Your task to perform on an android device: Open the calendar app, open the side menu, and click the "Day" option Image 0: 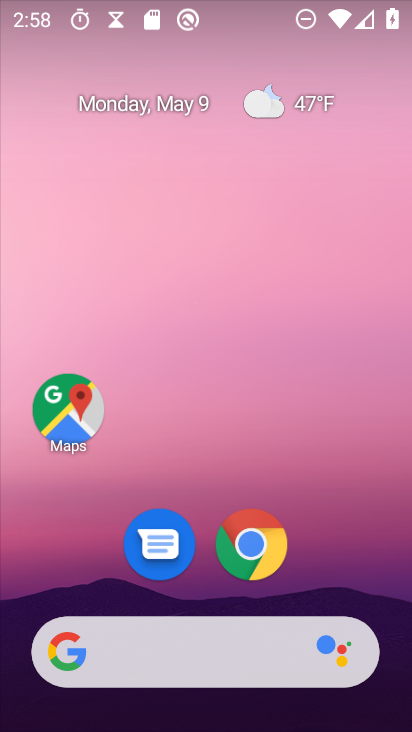
Step 0: drag from (321, 566) to (247, 56)
Your task to perform on an android device: Open the calendar app, open the side menu, and click the "Day" option Image 1: 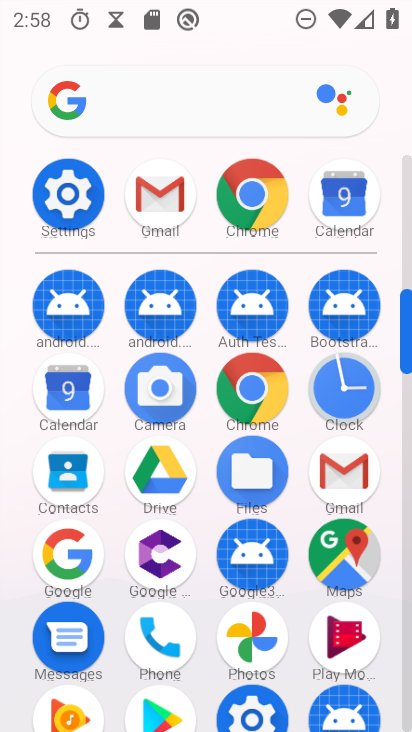
Step 1: click (79, 405)
Your task to perform on an android device: Open the calendar app, open the side menu, and click the "Day" option Image 2: 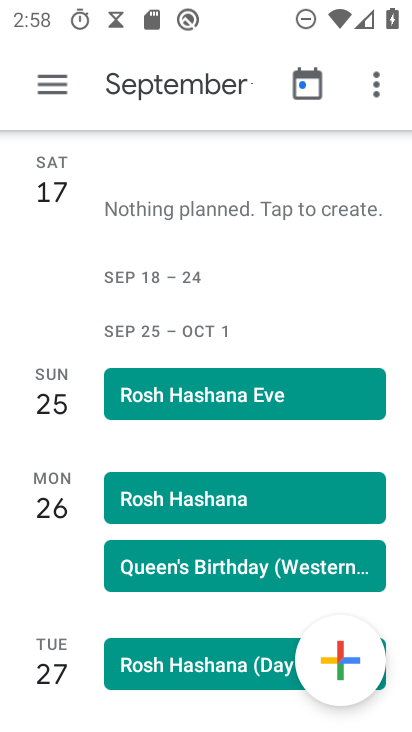
Step 2: click (59, 104)
Your task to perform on an android device: Open the calendar app, open the side menu, and click the "Day" option Image 3: 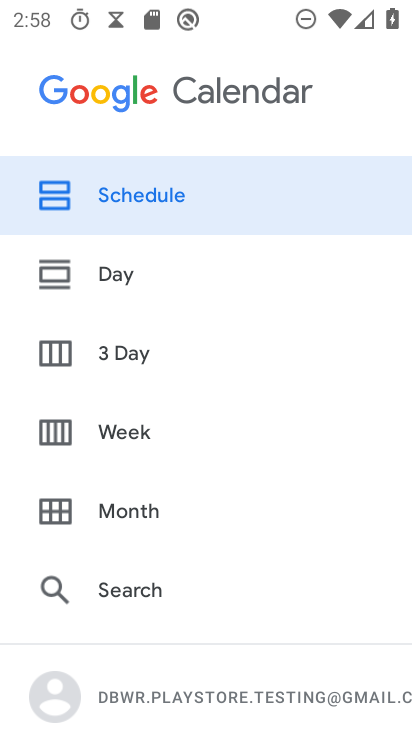
Step 3: click (130, 263)
Your task to perform on an android device: Open the calendar app, open the side menu, and click the "Day" option Image 4: 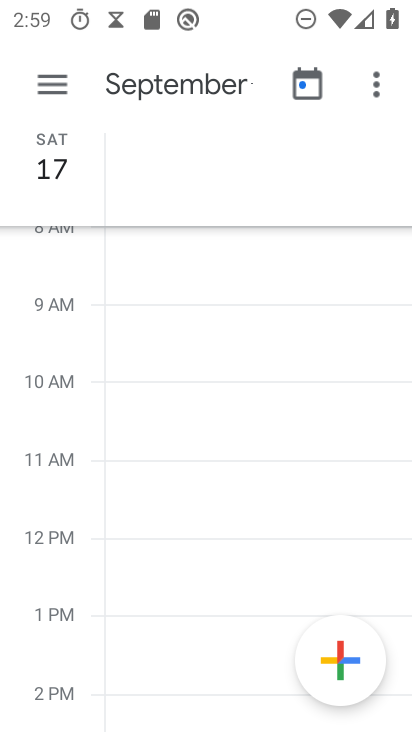
Step 4: task complete